Your task to perform on an android device: Go to eBay Image 0: 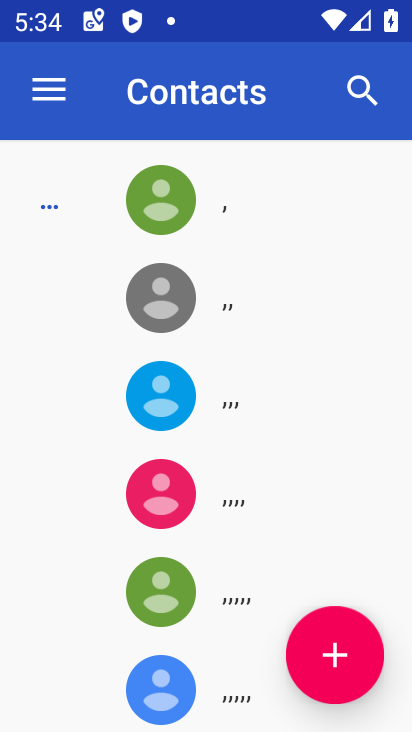
Step 0: press home button
Your task to perform on an android device: Go to eBay Image 1: 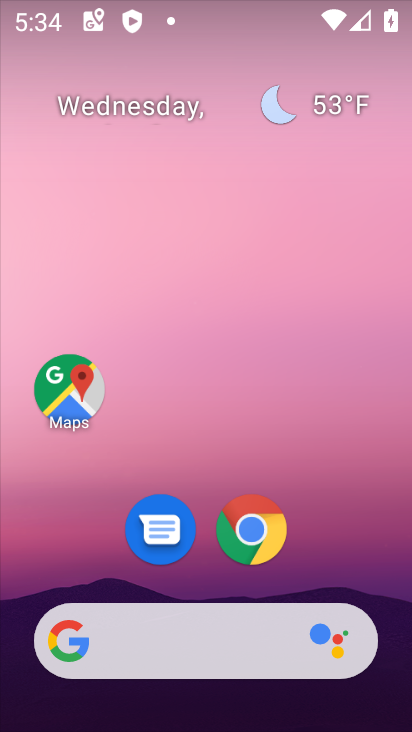
Step 1: drag from (271, 587) to (271, 263)
Your task to perform on an android device: Go to eBay Image 2: 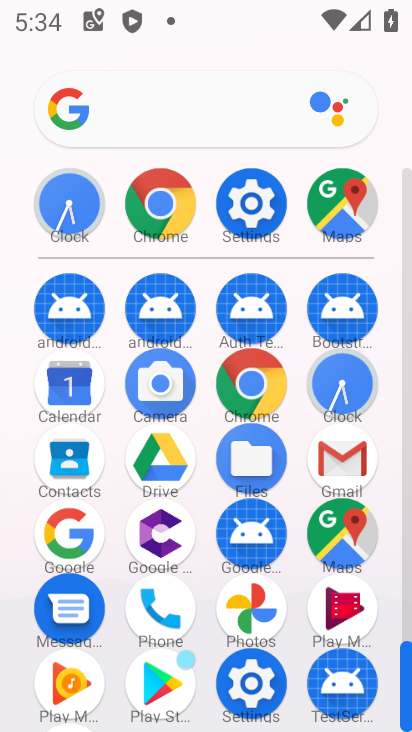
Step 2: click (159, 213)
Your task to perform on an android device: Go to eBay Image 3: 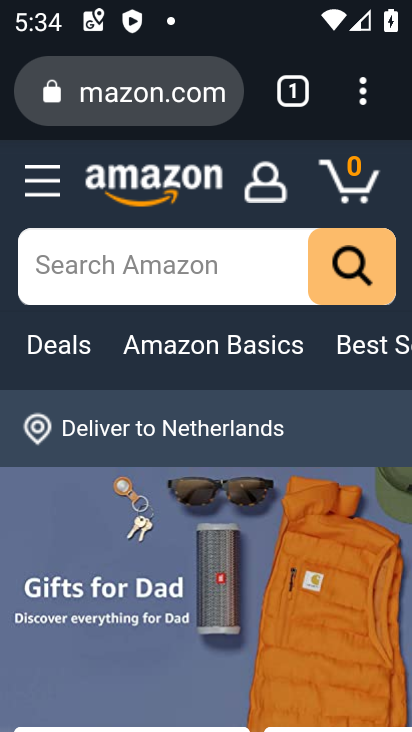
Step 3: click (366, 97)
Your task to perform on an android device: Go to eBay Image 4: 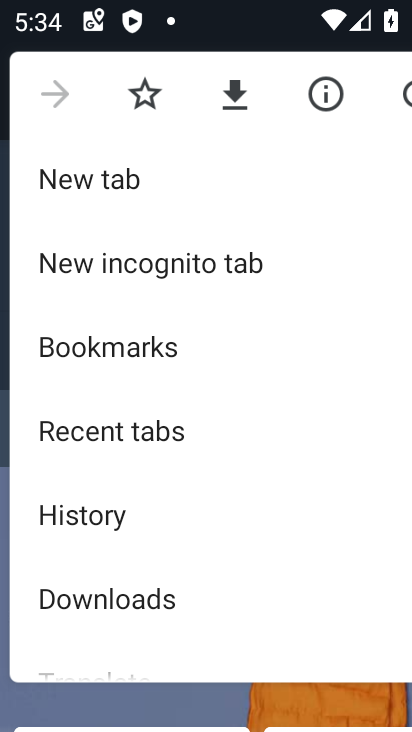
Step 4: press back button
Your task to perform on an android device: Go to eBay Image 5: 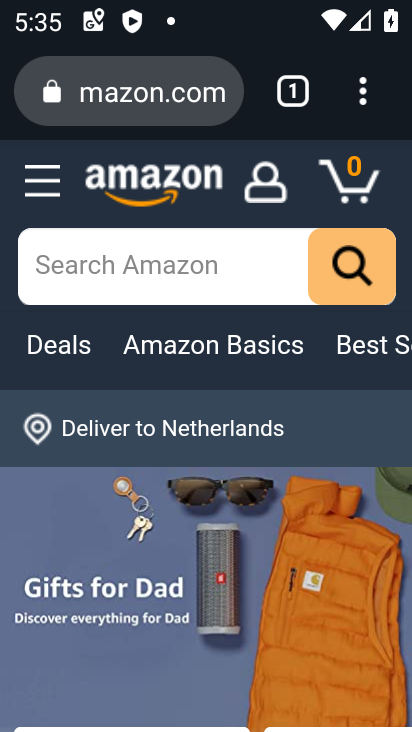
Step 5: press back button
Your task to perform on an android device: Go to eBay Image 6: 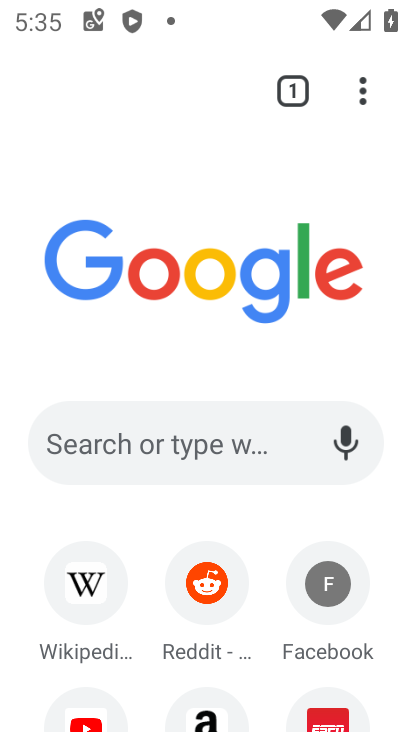
Step 6: drag from (277, 664) to (264, 470)
Your task to perform on an android device: Go to eBay Image 7: 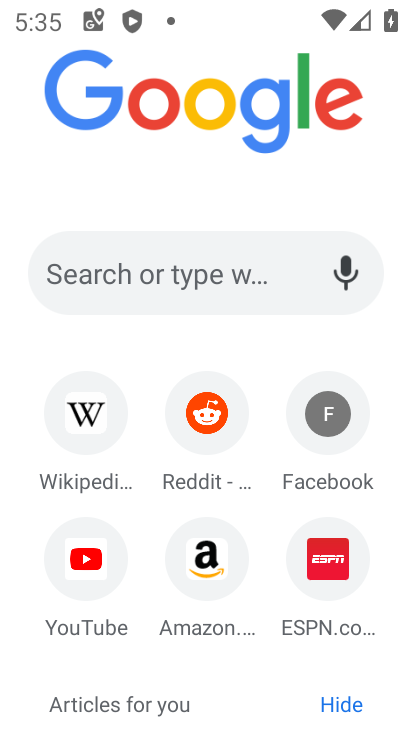
Step 7: drag from (249, 651) to (273, 400)
Your task to perform on an android device: Go to eBay Image 8: 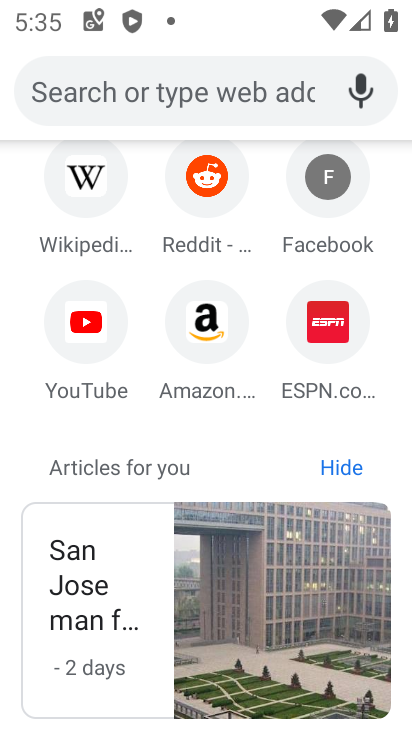
Step 8: click (178, 219)
Your task to perform on an android device: Go to eBay Image 9: 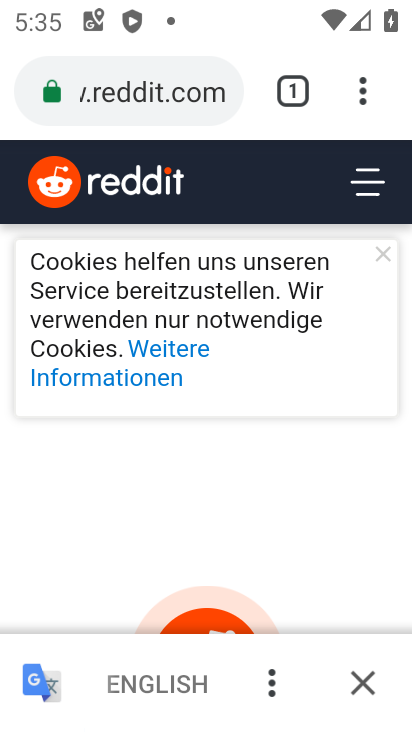
Step 9: press back button
Your task to perform on an android device: Go to eBay Image 10: 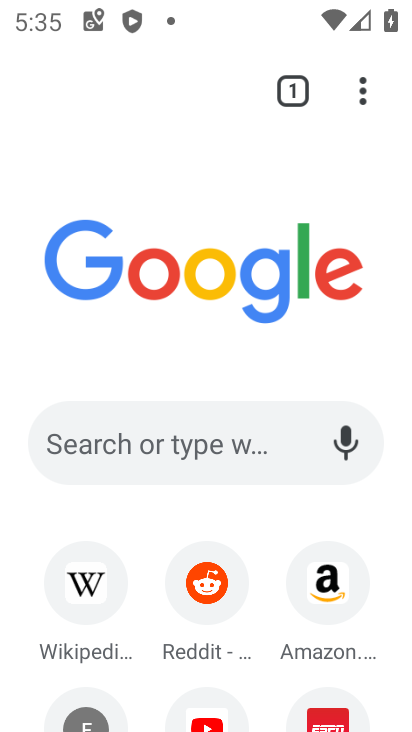
Step 10: click (202, 465)
Your task to perform on an android device: Go to eBay Image 11: 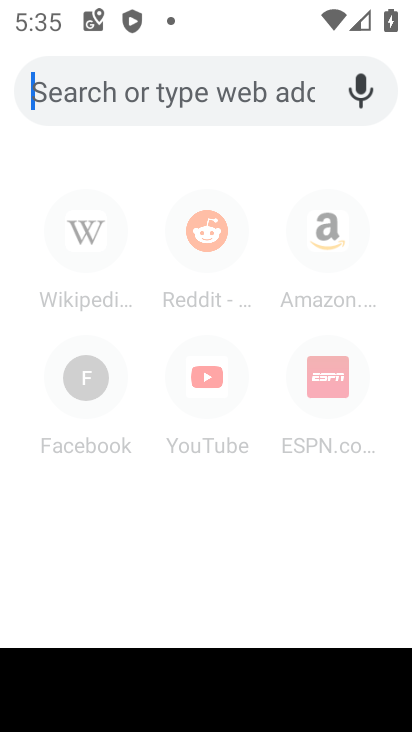
Step 11: type "www.ebay.com"
Your task to perform on an android device: Go to eBay Image 12: 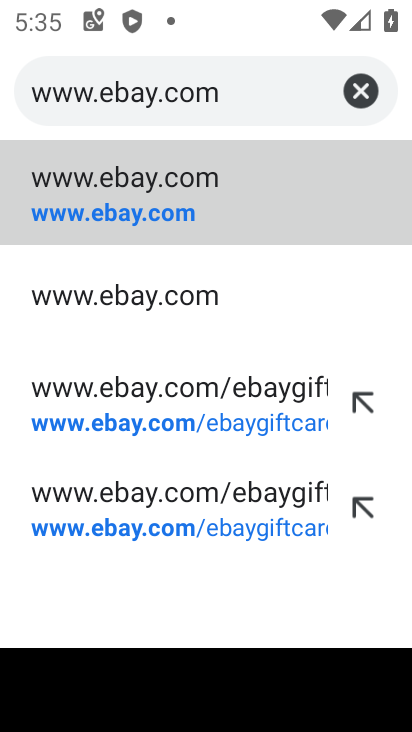
Step 12: click (157, 224)
Your task to perform on an android device: Go to eBay Image 13: 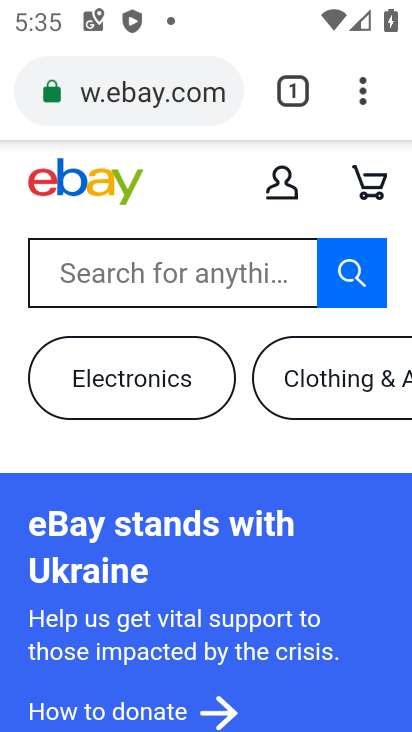
Step 13: task complete